Your task to perform on an android device: Search for seafood restaurants on Google Maps Image 0: 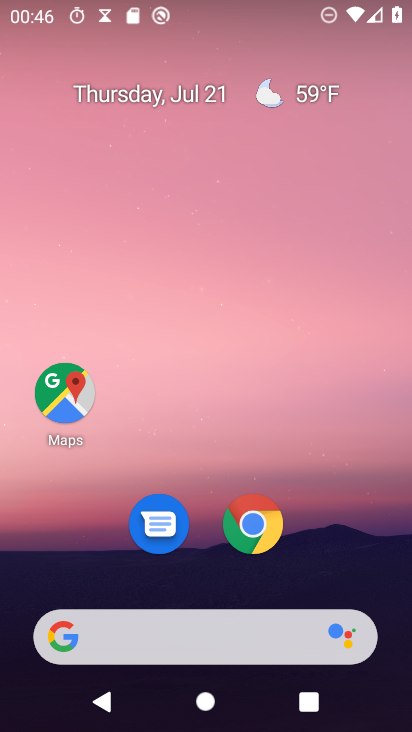
Step 0: click (61, 390)
Your task to perform on an android device: Search for seafood restaurants on Google Maps Image 1: 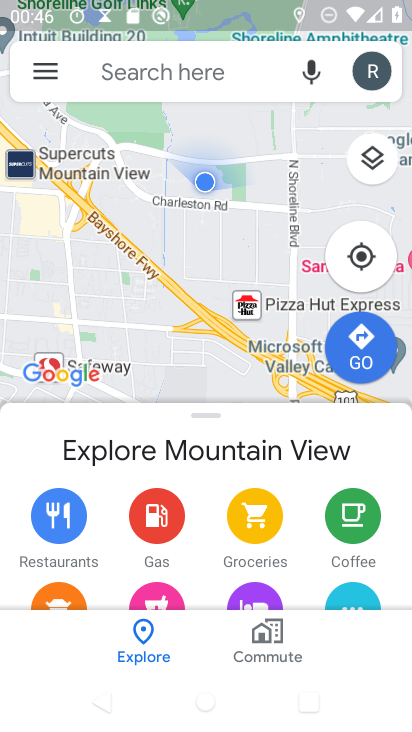
Step 1: click (205, 75)
Your task to perform on an android device: Search for seafood restaurants on Google Maps Image 2: 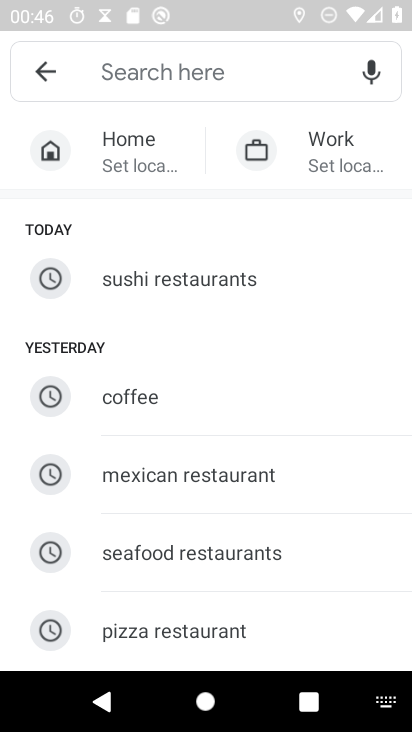
Step 2: click (198, 553)
Your task to perform on an android device: Search for seafood restaurants on Google Maps Image 3: 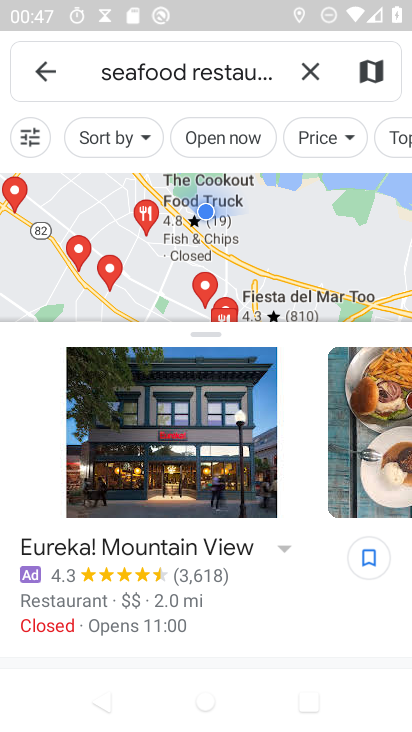
Step 3: task complete